Your task to perform on an android device: Go to wifi settings Image 0: 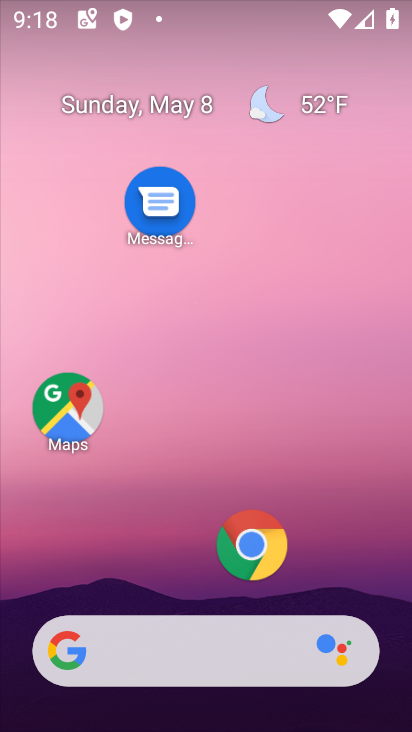
Step 0: drag from (191, 608) to (252, 14)
Your task to perform on an android device: Go to wifi settings Image 1: 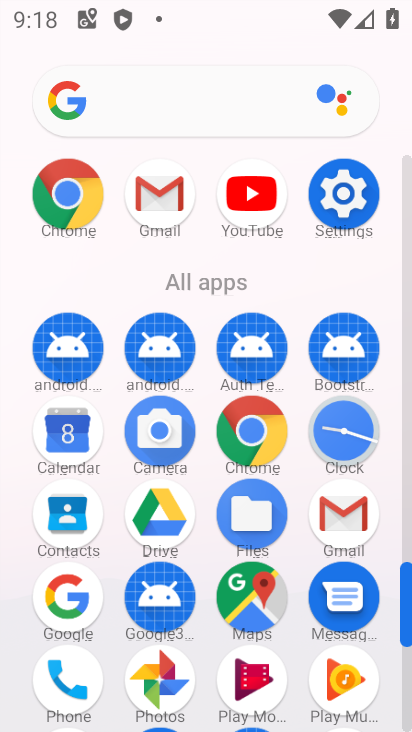
Step 1: click (349, 186)
Your task to perform on an android device: Go to wifi settings Image 2: 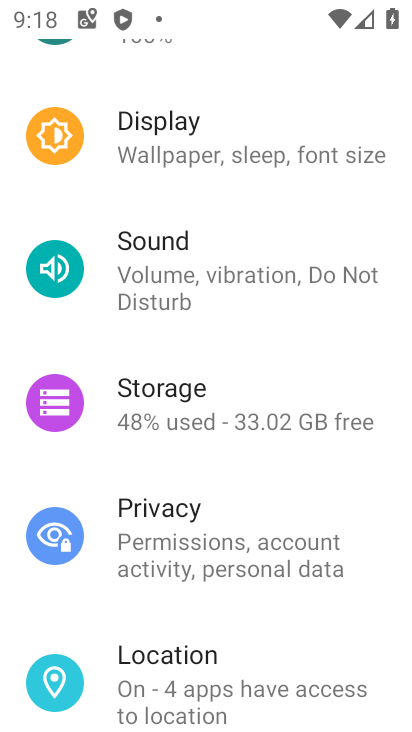
Step 2: drag from (317, 141) to (198, 687)
Your task to perform on an android device: Go to wifi settings Image 3: 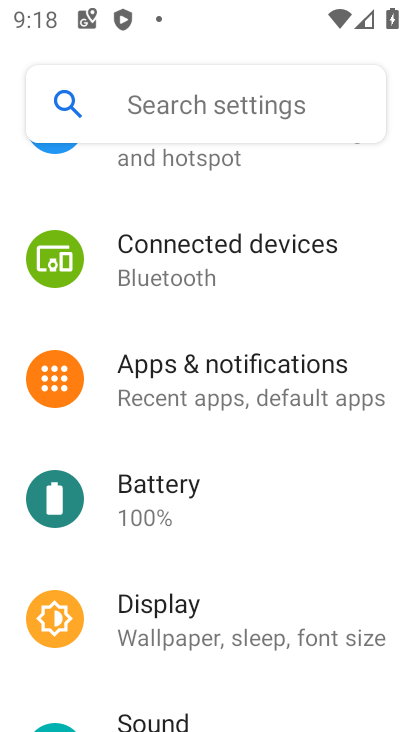
Step 3: click (165, 181)
Your task to perform on an android device: Go to wifi settings Image 4: 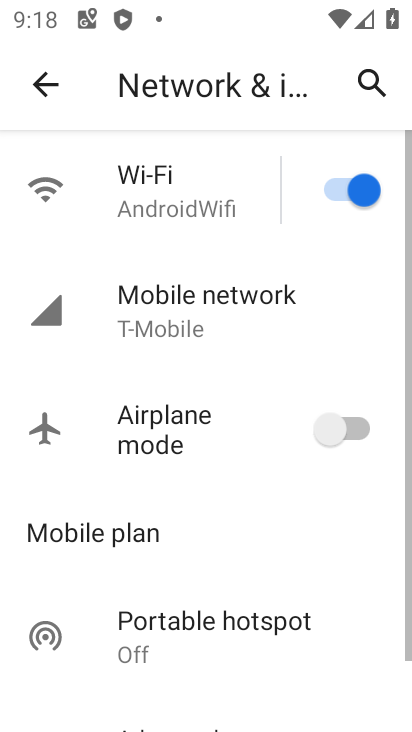
Step 4: click (133, 201)
Your task to perform on an android device: Go to wifi settings Image 5: 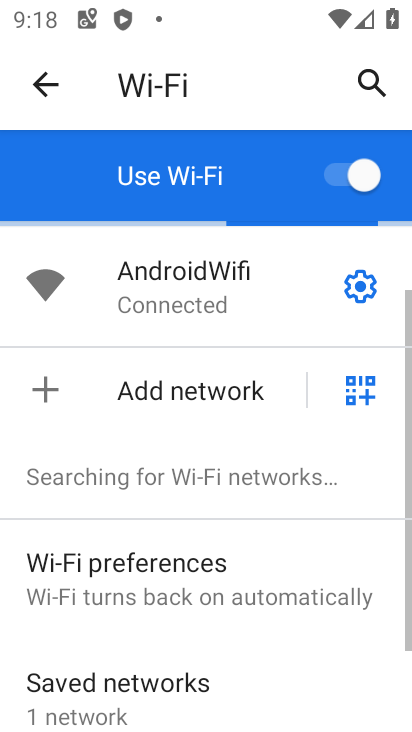
Step 5: task complete